Your task to perform on an android device: delete the emails in spam in the gmail app Image 0: 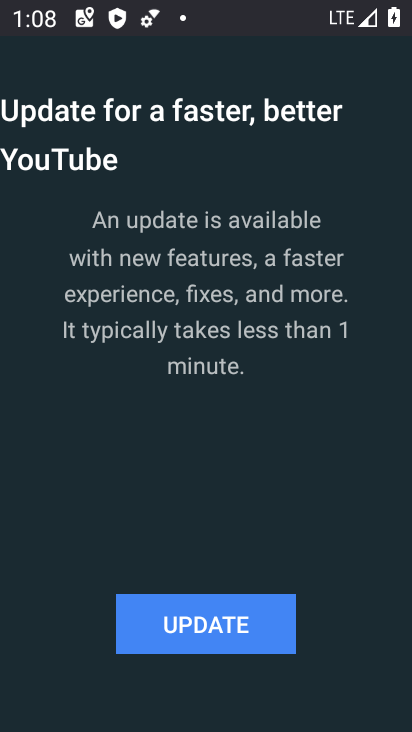
Step 0: press home button
Your task to perform on an android device: delete the emails in spam in the gmail app Image 1: 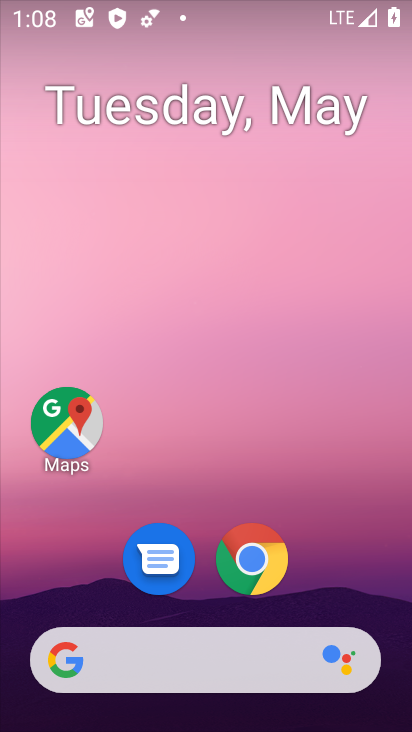
Step 1: drag from (366, 354) to (317, 78)
Your task to perform on an android device: delete the emails in spam in the gmail app Image 2: 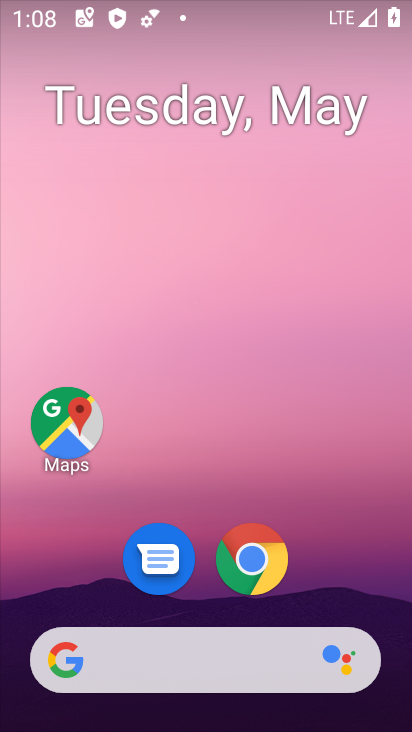
Step 2: drag from (330, 537) to (298, 54)
Your task to perform on an android device: delete the emails in spam in the gmail app Image 3: 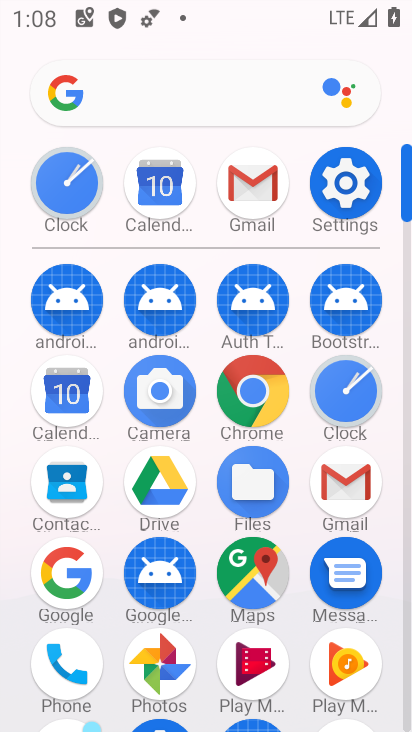
Step 3: click (265, 173)
Your task to perform on an android device: delete the emails in spam in the gmail app Image 4: 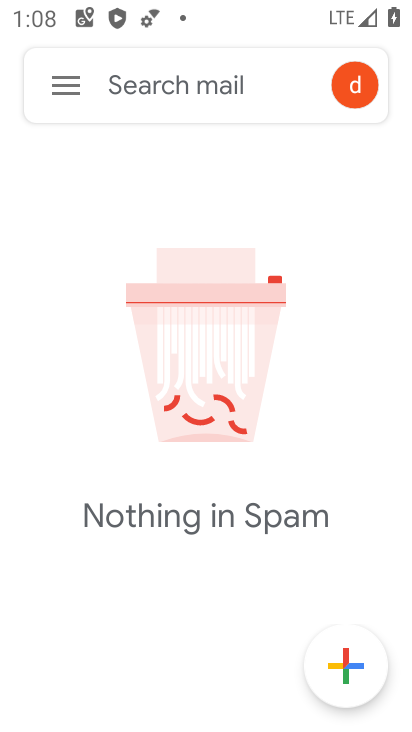
Step 4: task complete